Your task to perform on an android device: Open network settings Image 0: 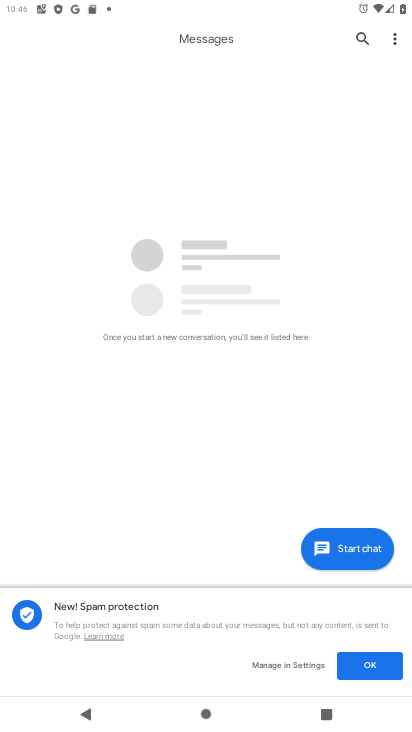
Step 0: press home button
Your task to perform on an android device: Open network settings Image 1: 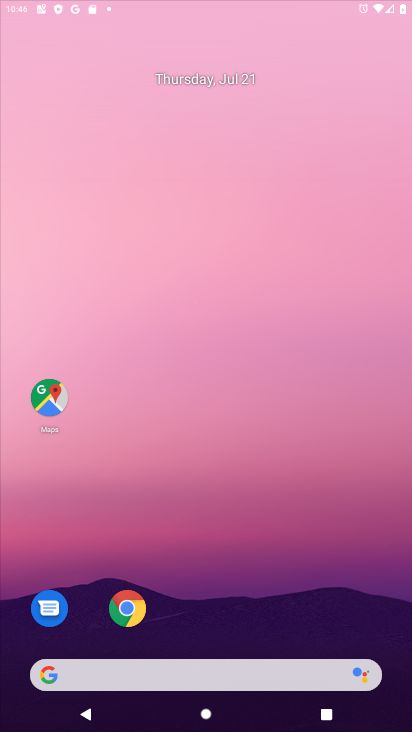
Step 1: drag from (392, 672) to (224, 23)
Your task to perform on an android device: Open network settings Image 2: 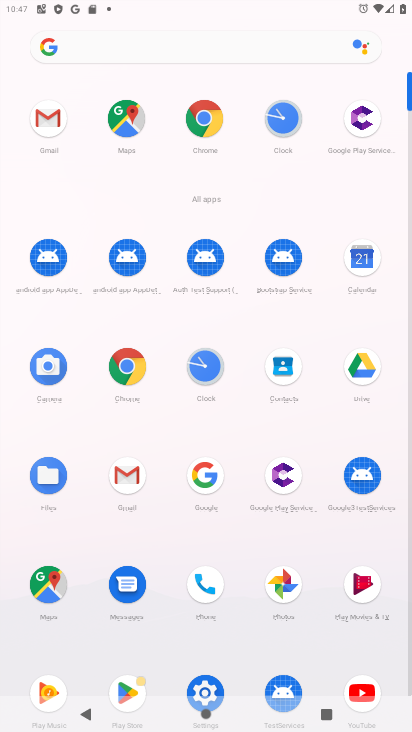
Step 2: click (214, 684)
Your task to perform on an android device: Open network settings Image 3: 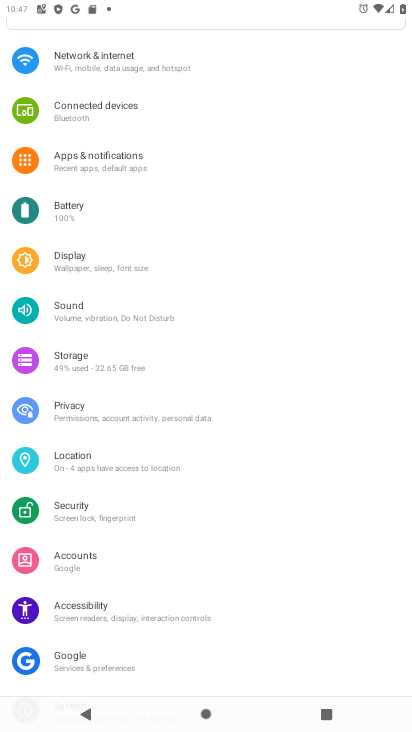
Step 3: click (144, 73)
Your task to perform on an android device: Open network settings Image 4: 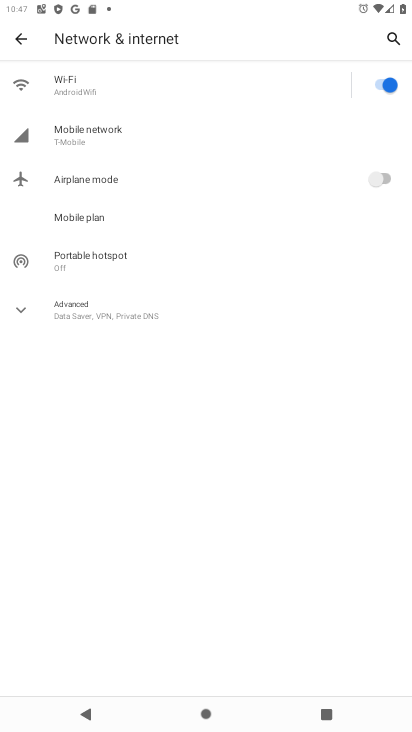
Step 4: task complete